Your task to perform on an android device: change timer sound Image 0: 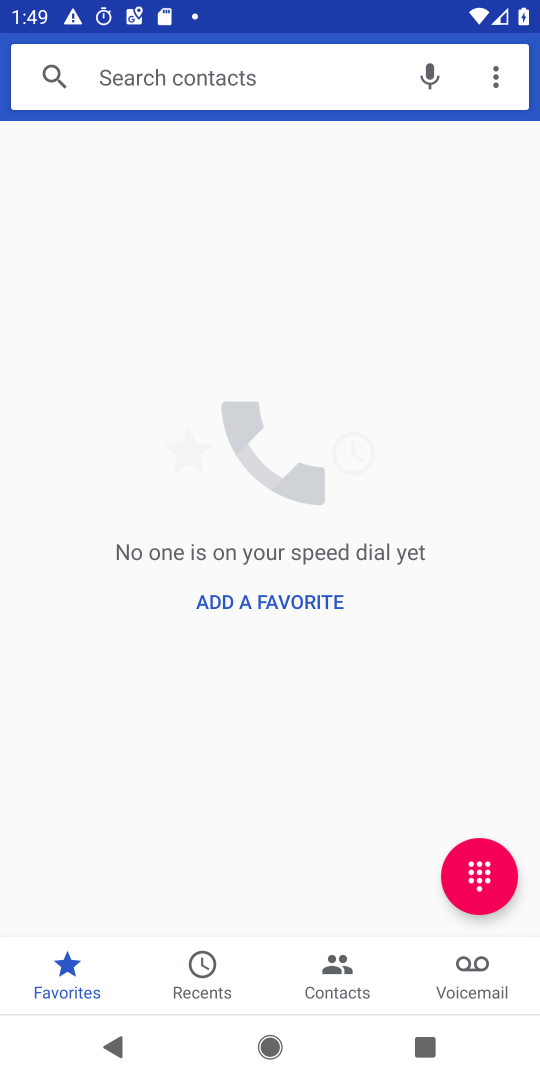
Step 0: press home button
Your task to perform on an android device: change timer sound Image 1: 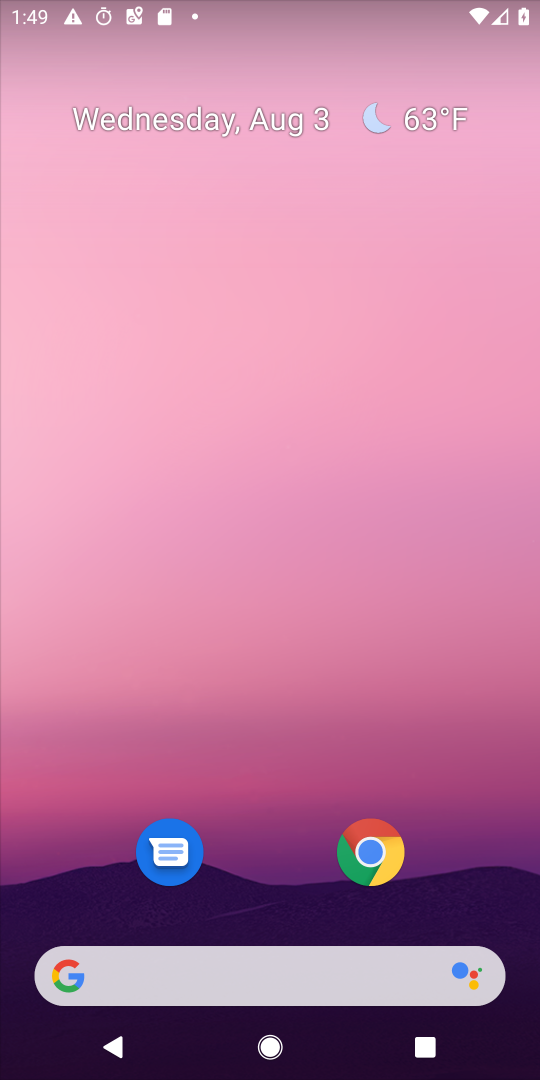
Step 1: drag from (506, 891) to (363, 14)
Your task to perform on an android device: change timer sound Image 2: 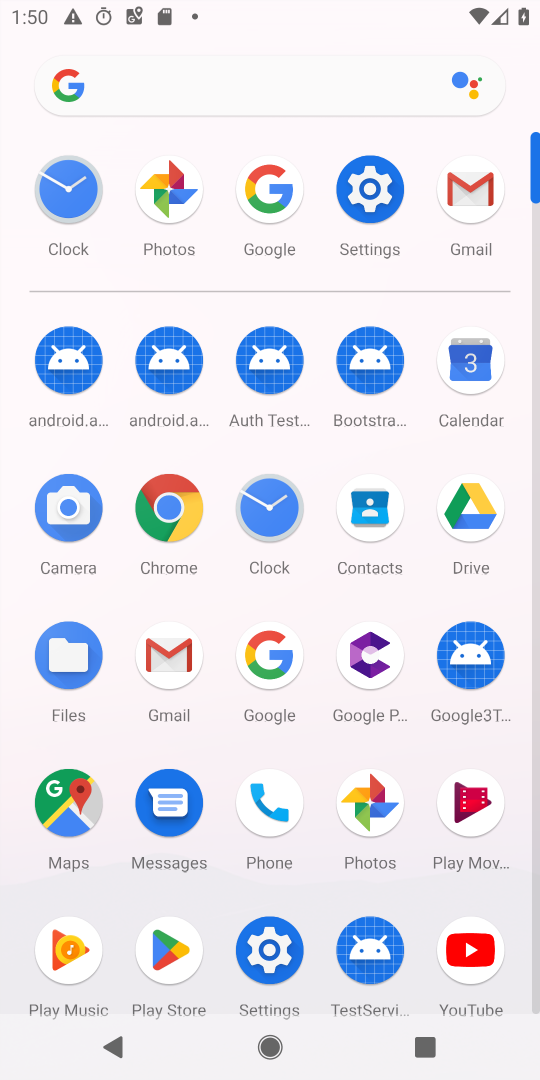
Step 2: click (267, 511)
Your task to perform on an android device: change timer sound Image 3: 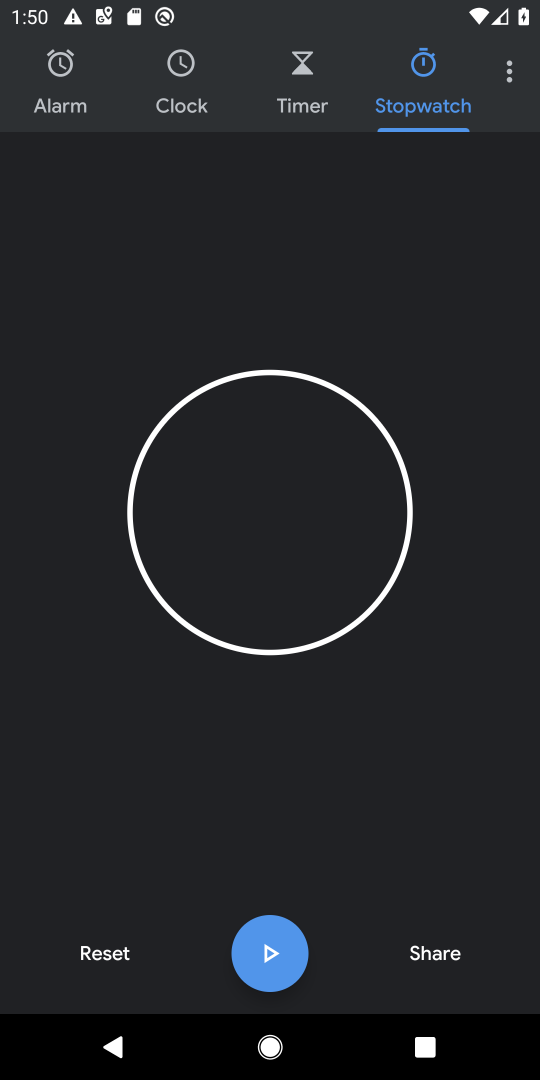
Step 3: click (506, 75)
Your task to perform on an android device: change timer sound Image 4: 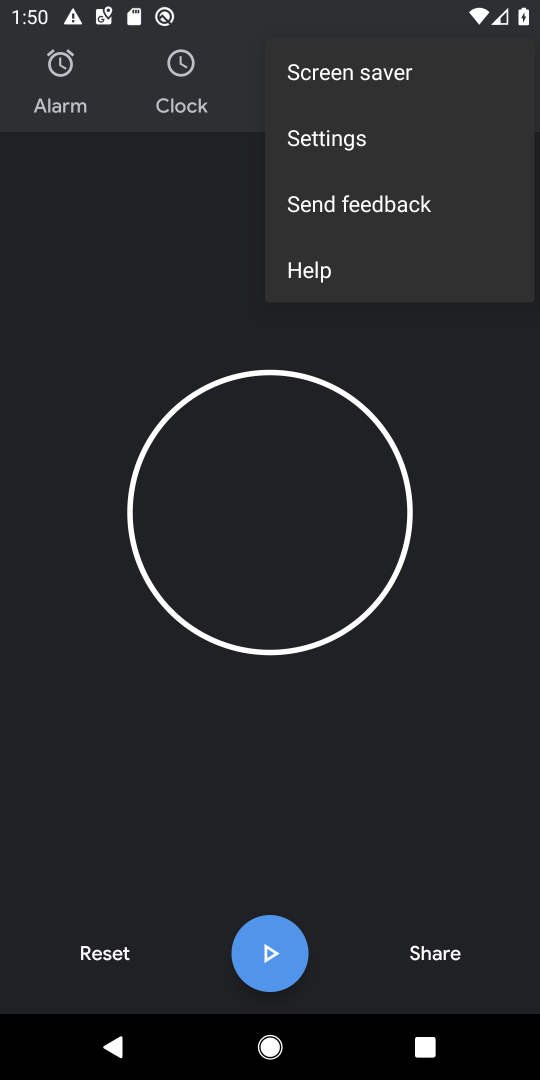
Step 4: click (340, 129)
Your task to perform on an android device: change timer sound Image 5: 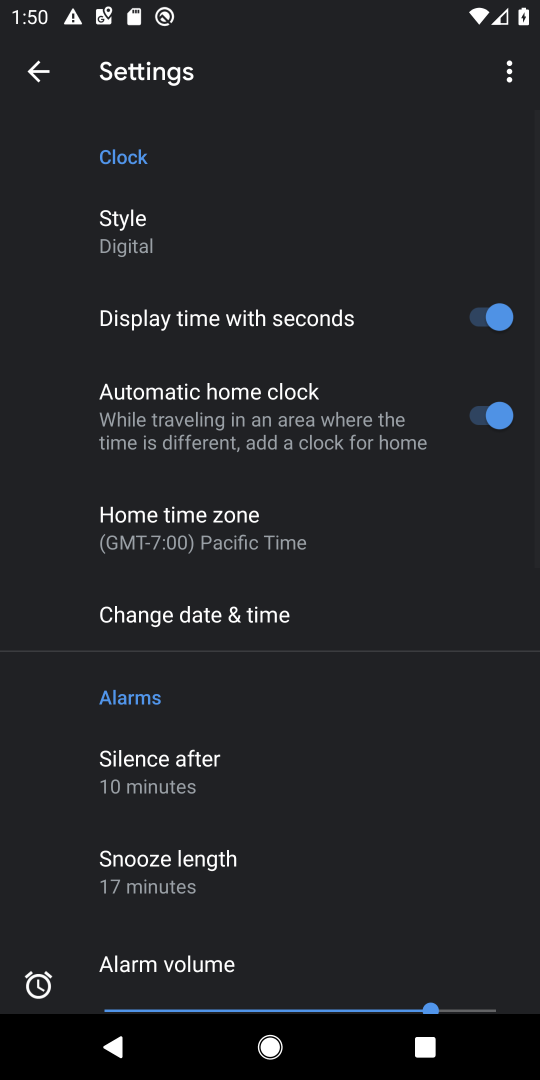
Step 5: drag from (158, 899) to (250, 82)
Your task to perform on an android device: change timer sound Image 6: 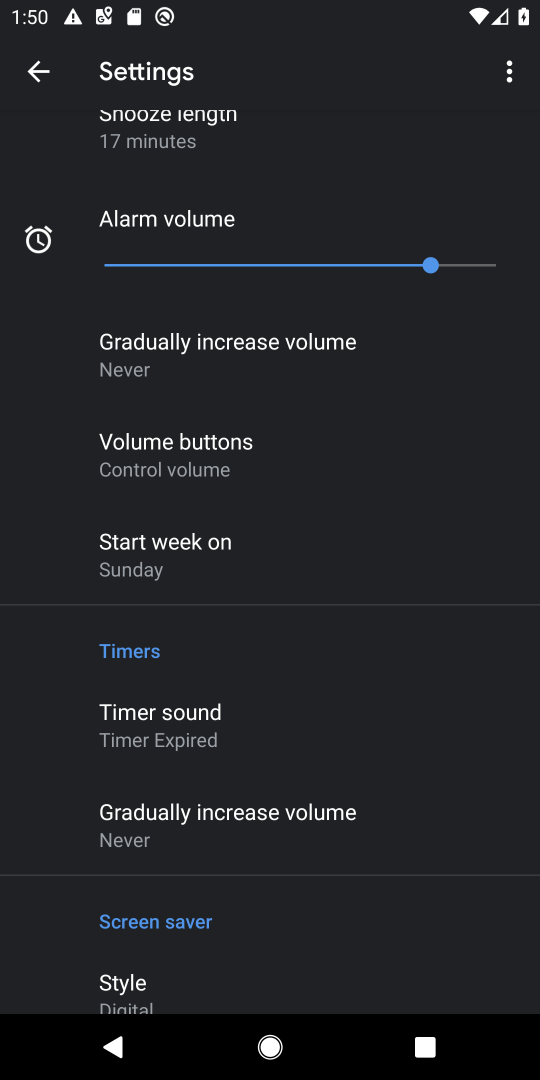
Step 6: click (211, 729)
Your task to perform on an android device: change timer sound Image 7: 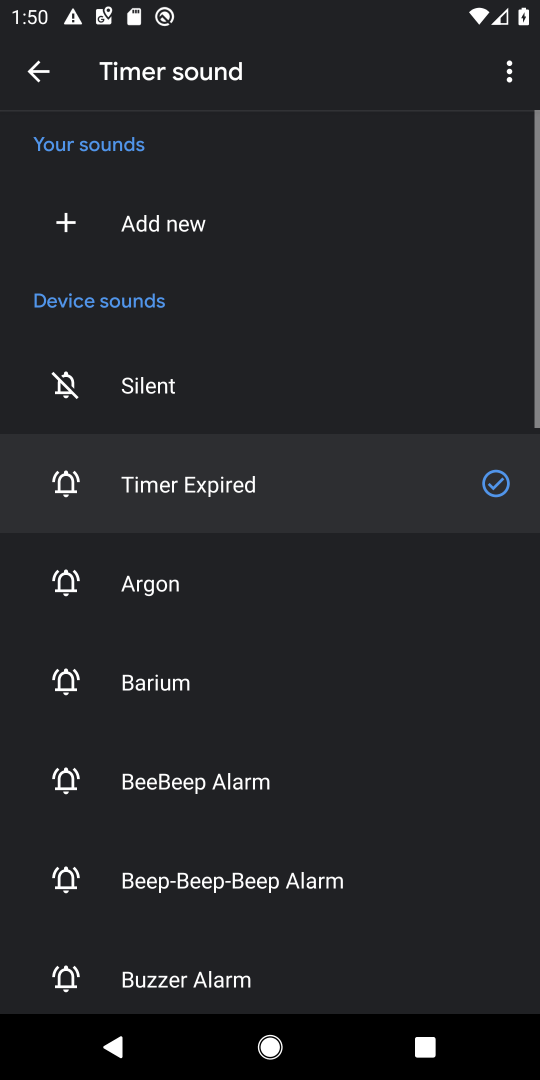
Step 7: click (192, 683)
Your task to perform on an android device: change timer sound Image 8: 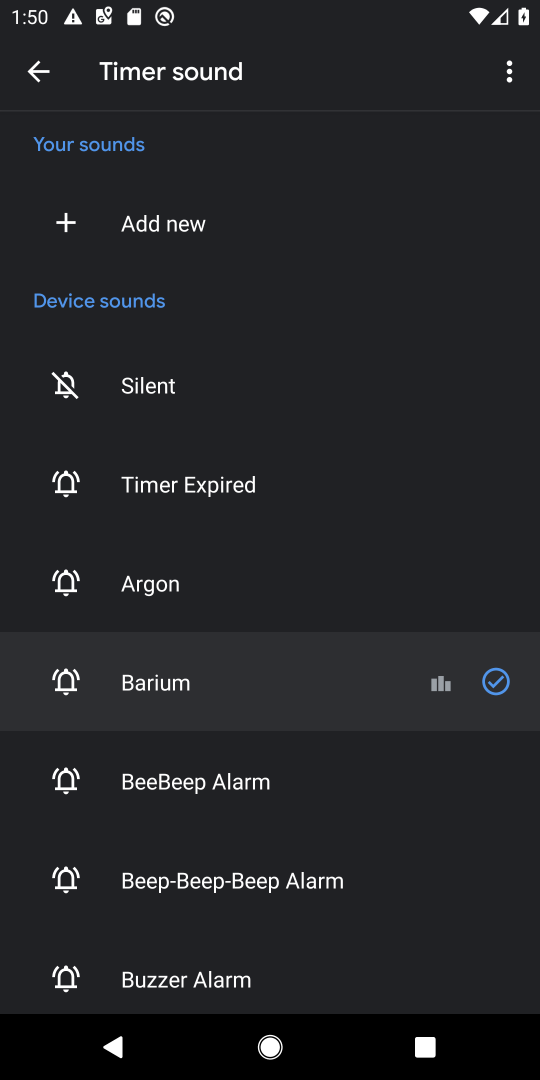
Step 8: task complete